Your task to perform on an android device: refresh tabs in the chrome app Image 0: 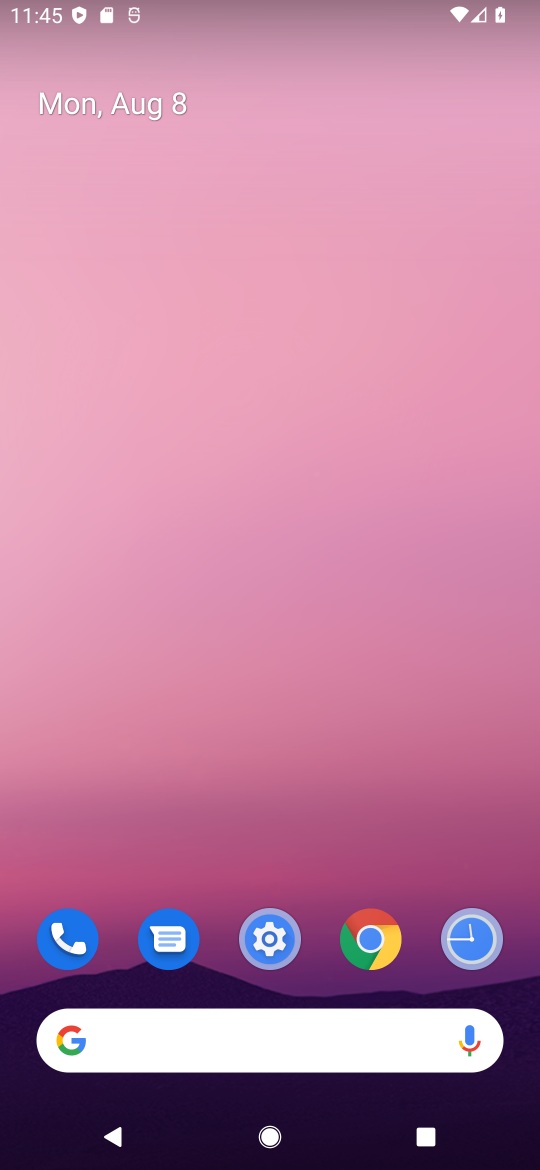
Step 0: click (372, 940)
Your task to perform on an android device: refresh tabs in the chrome app Image 1: 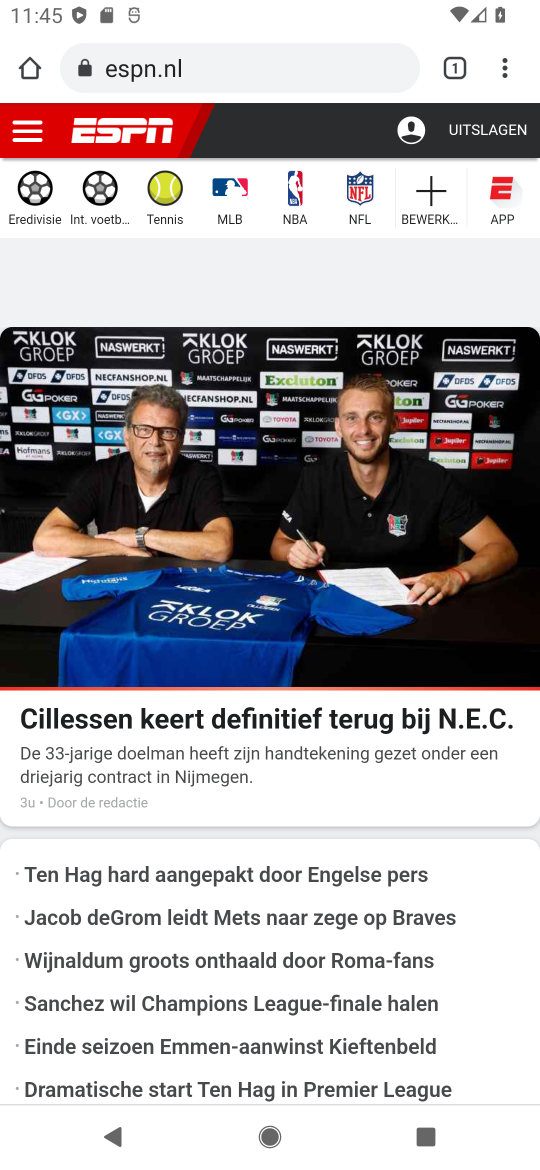
Step 1: click (506, 67)
Your task to perform on an android device: refresh tabs in the chrome app Image 2: 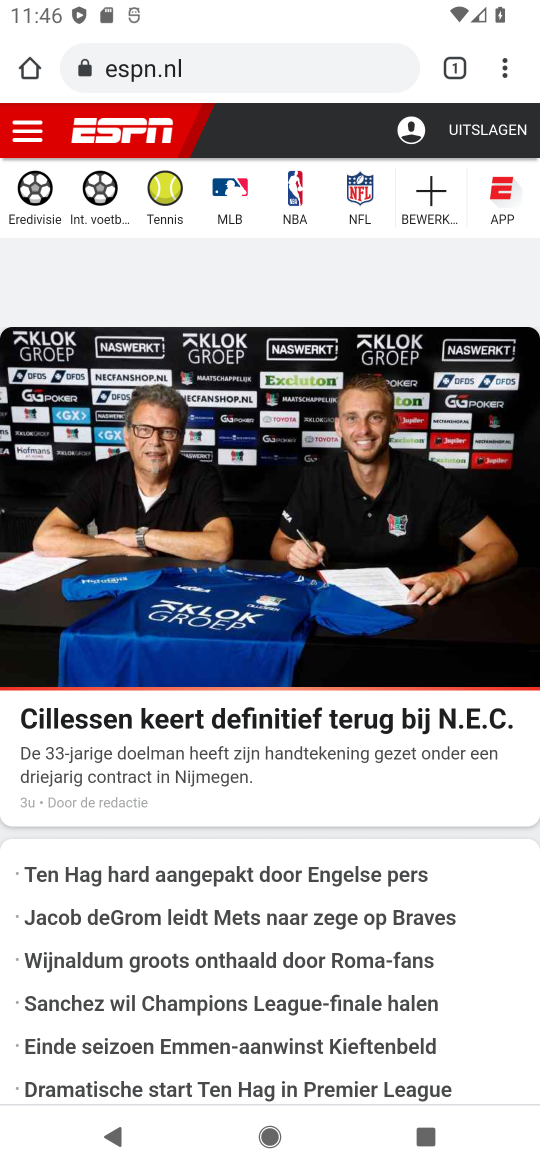
Step 2: task complete